Your task to perform on an android device: toggle airplane mode Image 0: 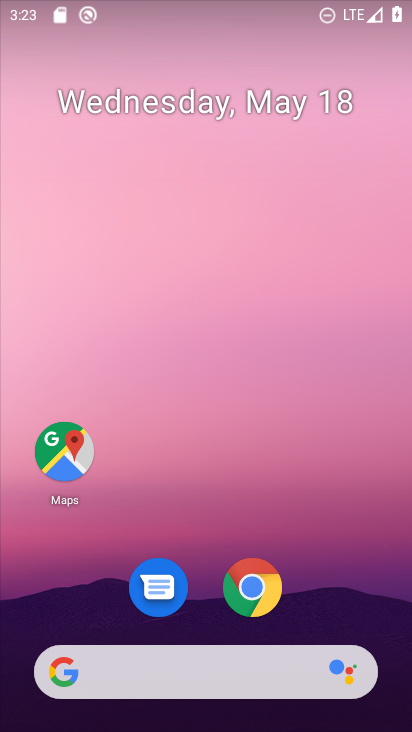
Step 0: drag from (232, 671) to (205, 7)
Your task to perform on an android device: toggle airplane mode Image 1: 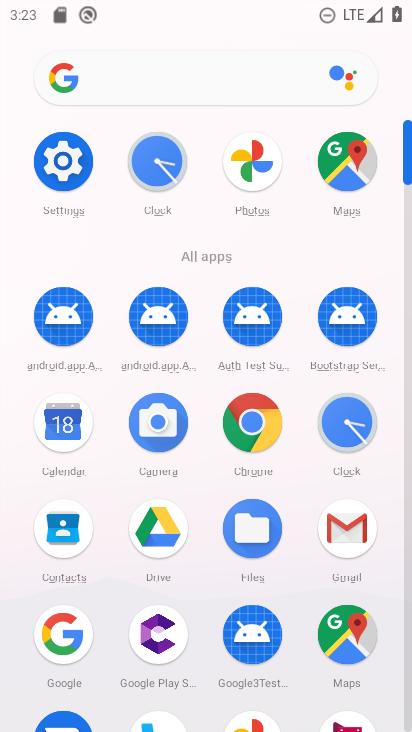
Step 1: click (66, 181)
Your task to perform on an android device: toggle airplane mode Image 2: 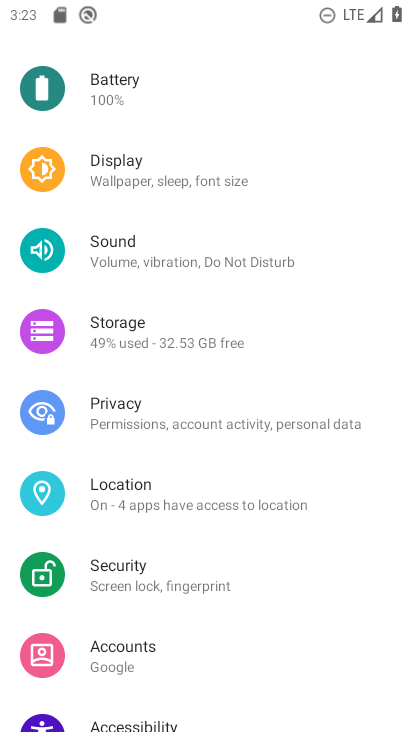
Step 2: drag from (129, 132) to (131, 627)
Your task to perform on an android device: toggle airplane mode Image 3: 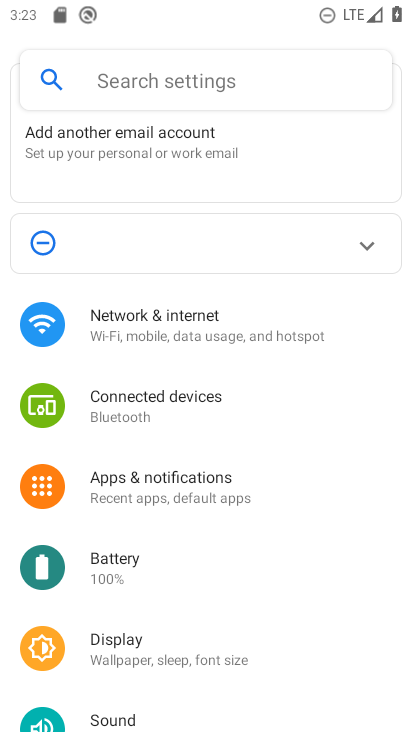
Step 3: click (202, 339)
Your task to perform on an android device: toggle airplane mode Image 4: 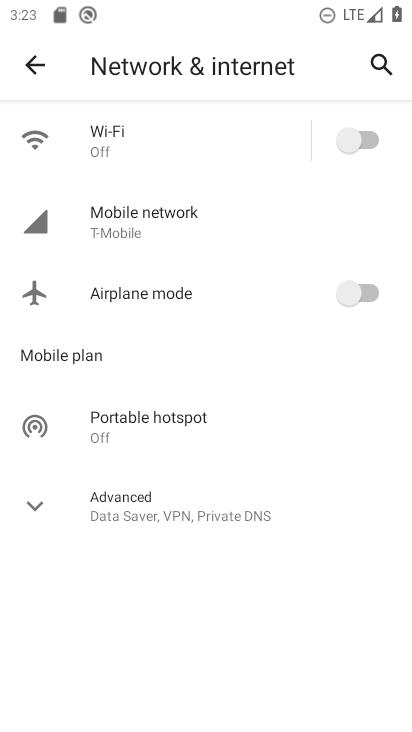
Step 4: click (349, 291)
Your task to perform on an android device: toggle airplane mode Image 5: 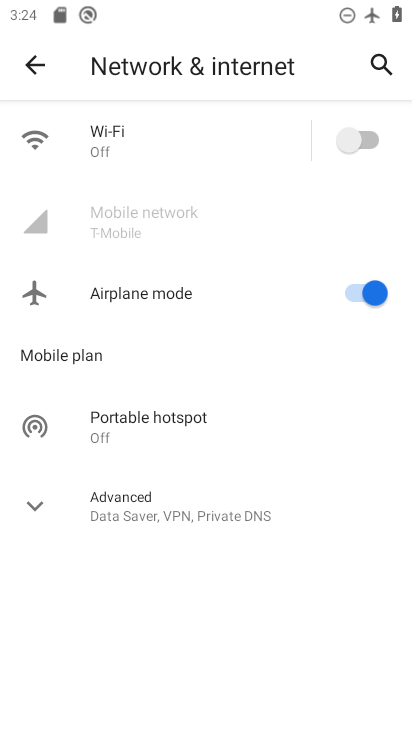
Step 5: task complete